Your task to perform on an android device: open a new tab in the chrome app Image 0: 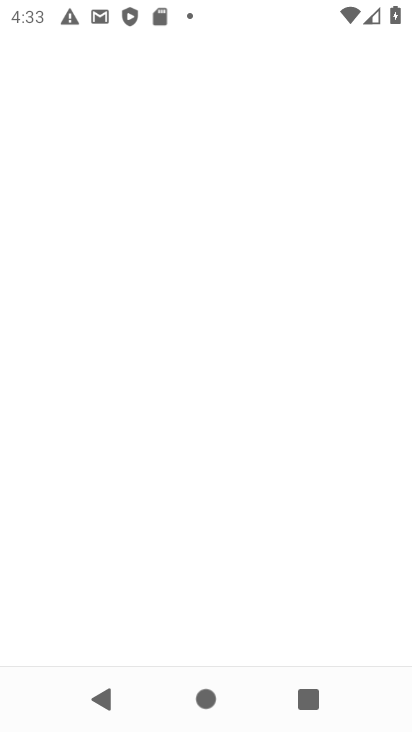
Step 0: drag from (153, 590) to (186, 230)
Your task to perform on an android device: open a new tab in the chrome app Image 1: 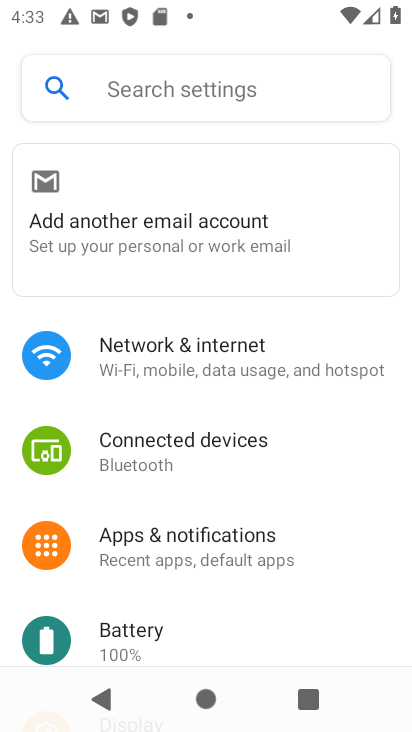
Step 1: press home button
Your task to perform on an android device: open a new tab in the chrome app Image 2: 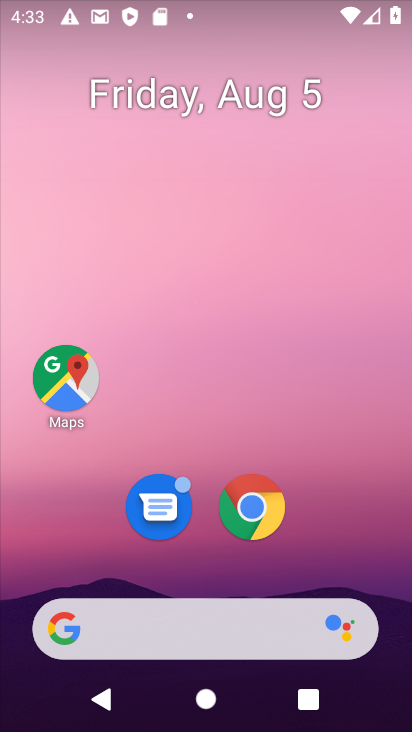
Step 2: click (254, 519)
Your task to perform on an android device: open a new tab in the chrome app Image 3: 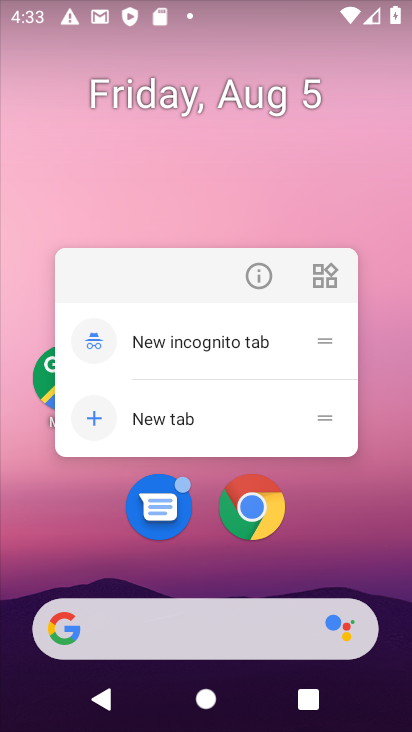
Step 3: click (250, 514)
Your task to perform on an android device: open a new tab in the chrome app Image 4: 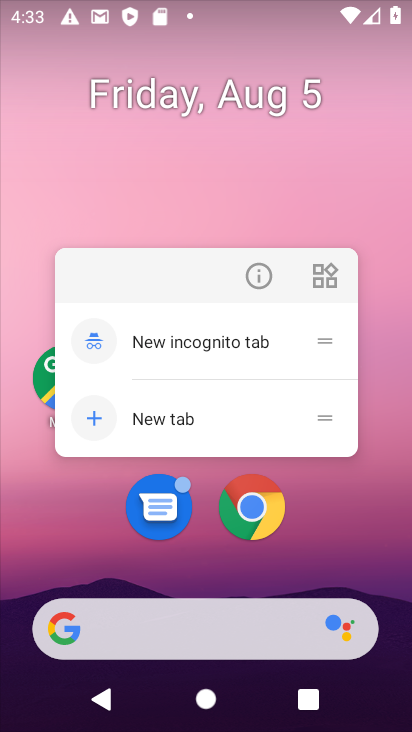
Step 4: click (250, 514)
Your task to perform on an android device: open a new tab in the chrome app Image 5: 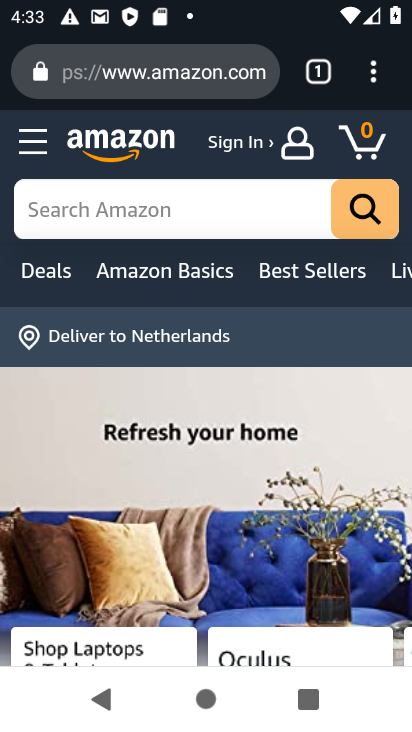
Step 5: click (380, 77)
Your task to perform on an android device: open a new tab in the chrome app Image 6: 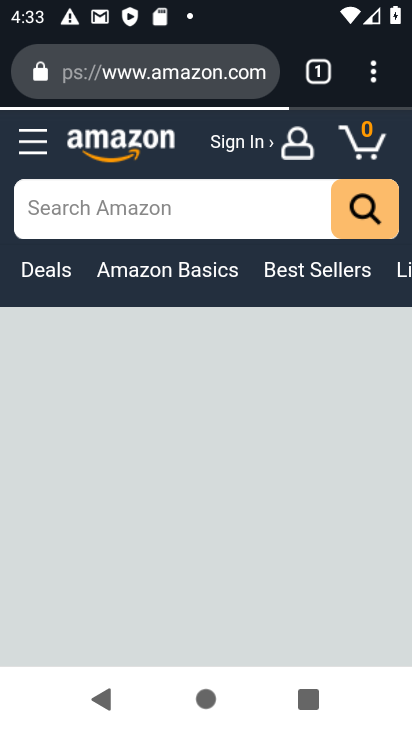
Step 6: click (380, 77)
Your task to perform on an android device: open a new tab in the chrome app Image 7: 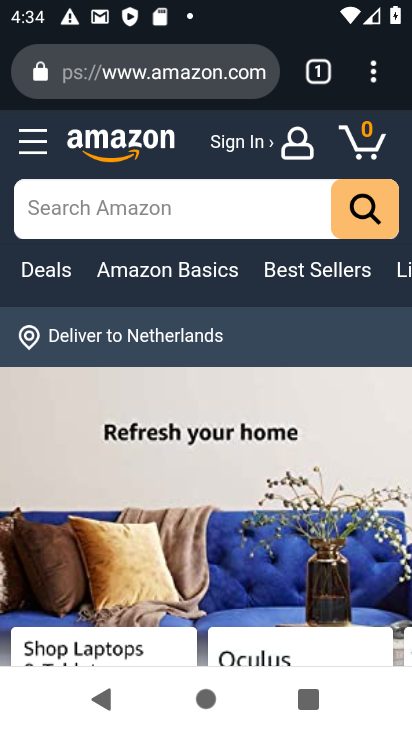
Step 7: click (380, 77)
Your task to perform on an android device: open a new tab in the chrome app Image 8: 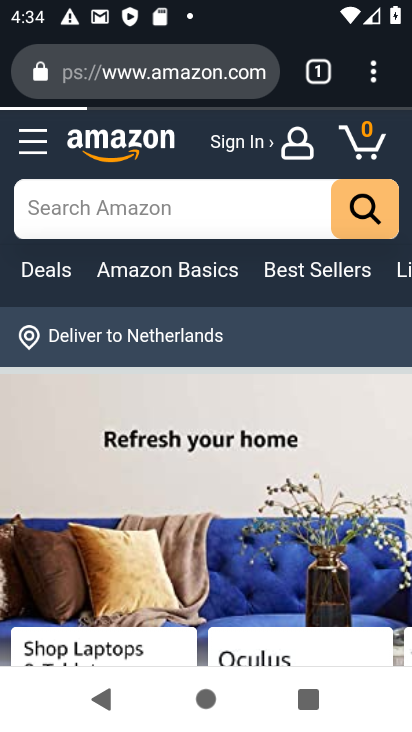
Step 8: click (380, 83)
Your task to perform on an android device: open a new tab in the chrome app Image 9: 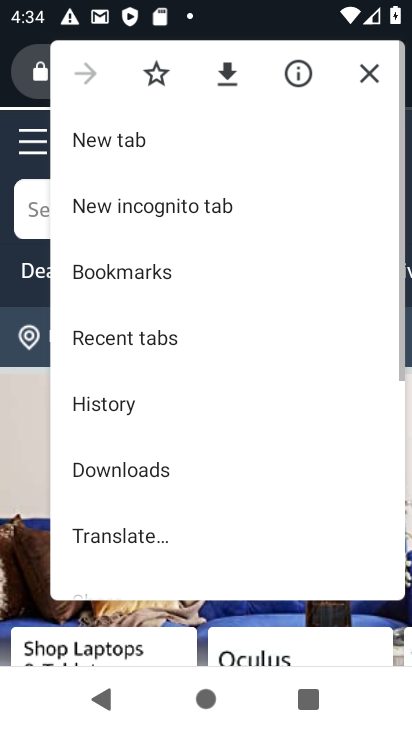
Step 9: click (376, 80)
Your task to perform on an android device: open a new tab in the chrome app Image 10: 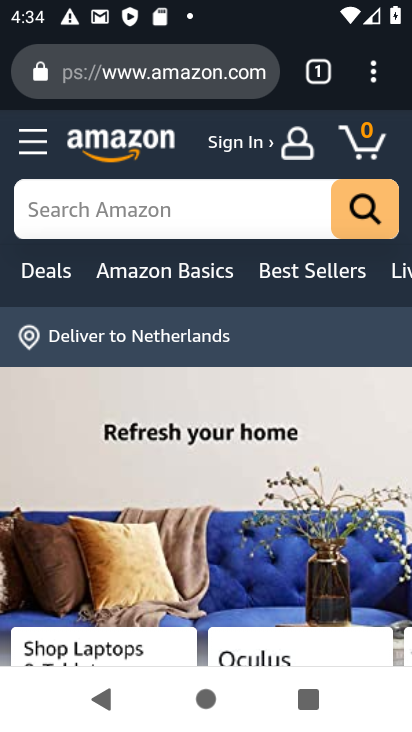
Step 10: click (376, 80)
Your task to perform on an android device: open a new tab in the chrome app Image 11: 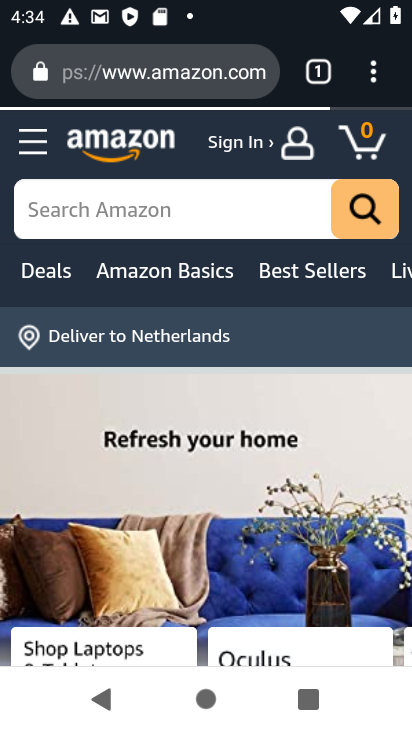
Step 11: click (376, 80)
Your task to perform on an android device: open a new tab in the chrome app Image 12: 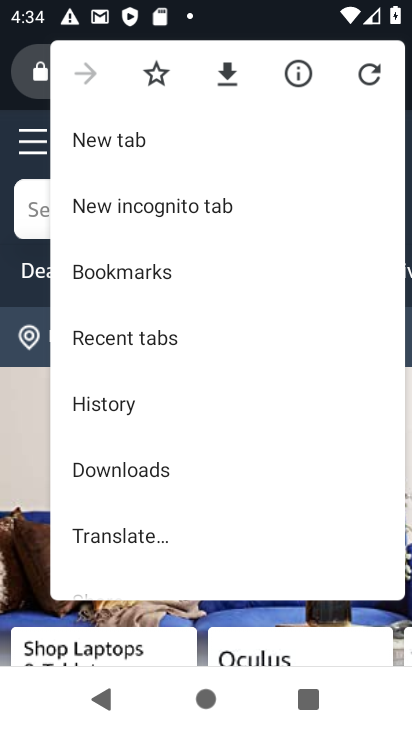
Step 12: click (116, 141)
Your task to perform on an android device: open a new tab in the chrome app Image 13: 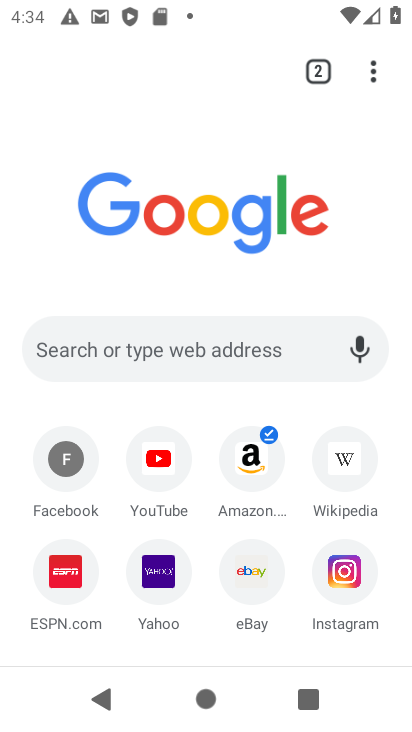
Step 13: task complete